Your task to perform on an android device: check google app version Image 0: 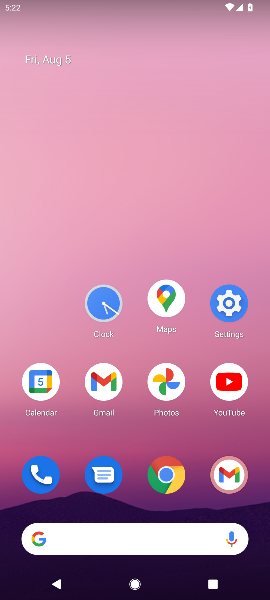
Step 0: drag from (263, 530) to (249, 142)
Your task to perform on an android device: check google app version Image 1: 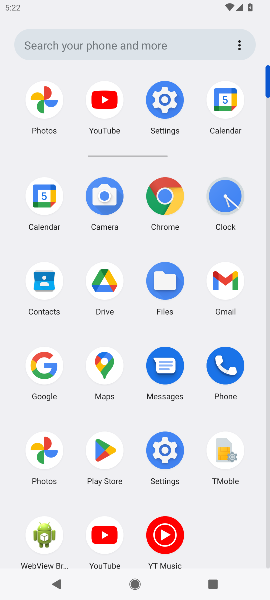
Step 1: click (54, 373)
Your task to perform on an android device: check google app version Image 2: 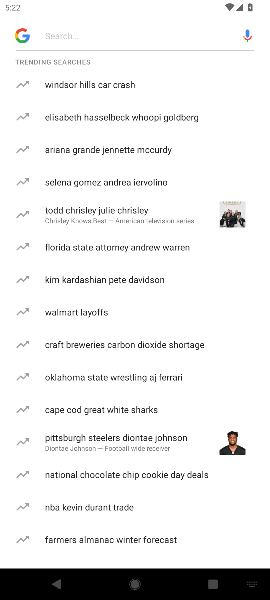
Step 2: press back button
Your task to perform on an android device: check google app version Image 3: 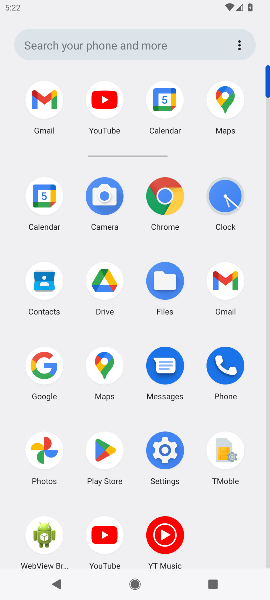
Step 3: click (48, 364)
Your task to perform on an android device: check google app version Image 4: 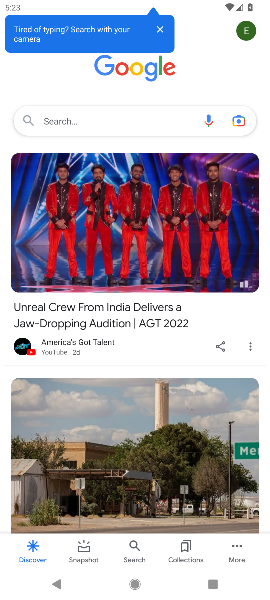
Step 4: click (239, 549)
Your task to perform on an android device: check google app version Image 5: 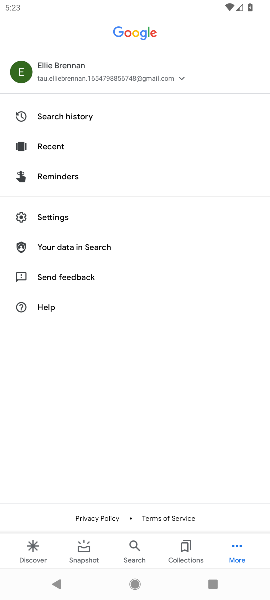
Step 5: click (232, 554)
Your task to perform on an android device: check google app version Image 6: 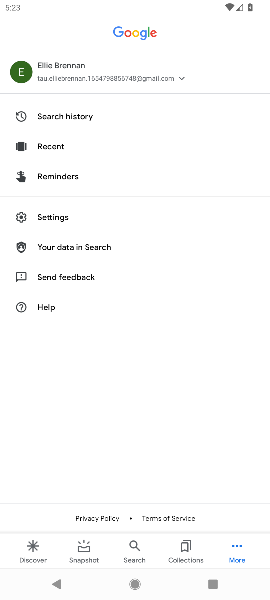
Step 6: click (46, 216)
Your task to perform on an android device: check google app version Image 7: 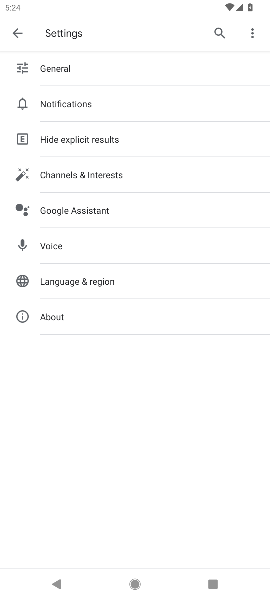
Step 7: click (64, 314)
Your task to perform on an android device: check google app version Image 8: 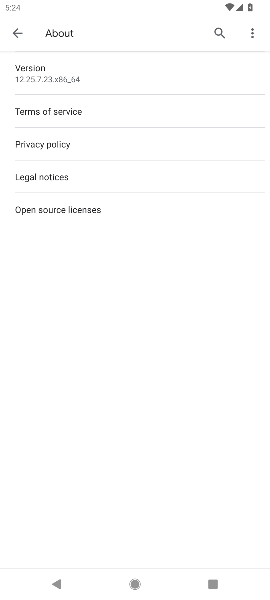
Step 8: click (68, 70)
Your task to perform on an android device: check google app version Image 9: 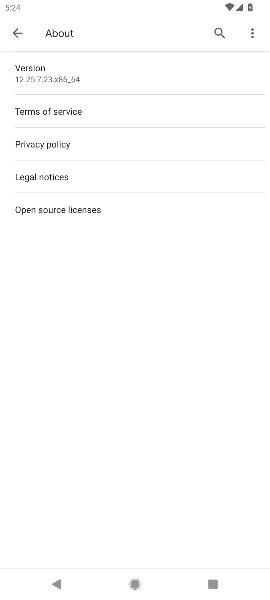
Step 9: task complete